Your task to perform on an android device: set default search engine in the chrome app Image 0: 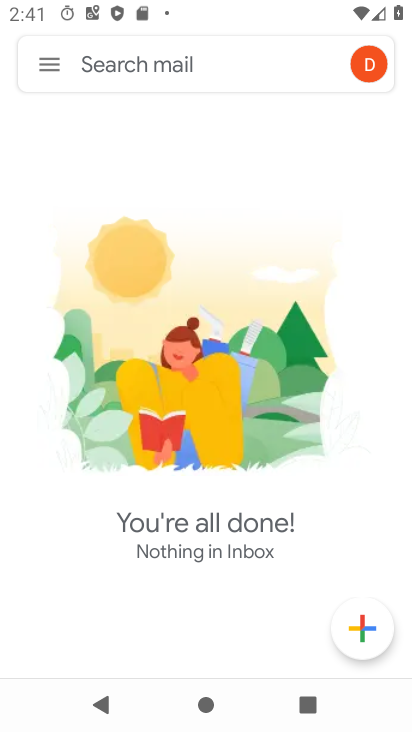
Step 0: press home button
Your task to perform on an android device: set default search engine in the chrome app Image 1: 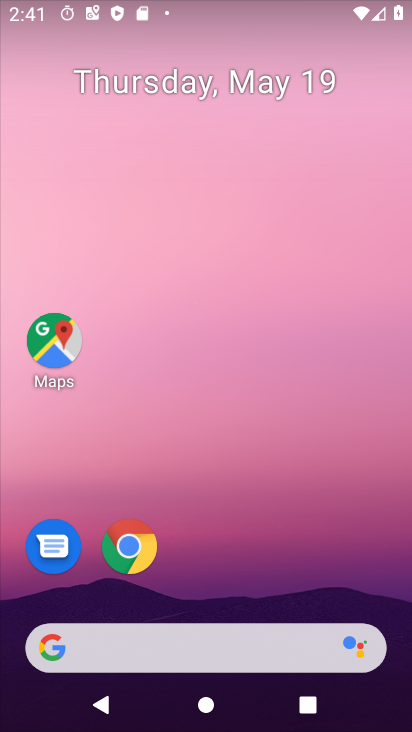
Step 1: click (133, 536)
Your task to perform on an android device: set default search engine in the chrome app Image 2: 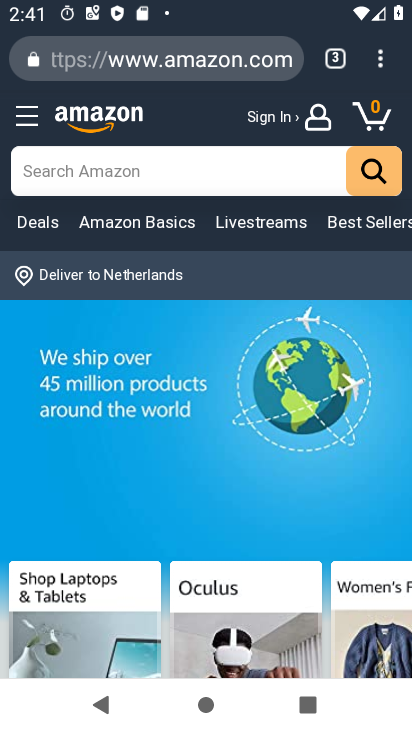
Step 2: click (396, 58)
Your task to perform on an android device: set default search engine in the chrome app Image 3: 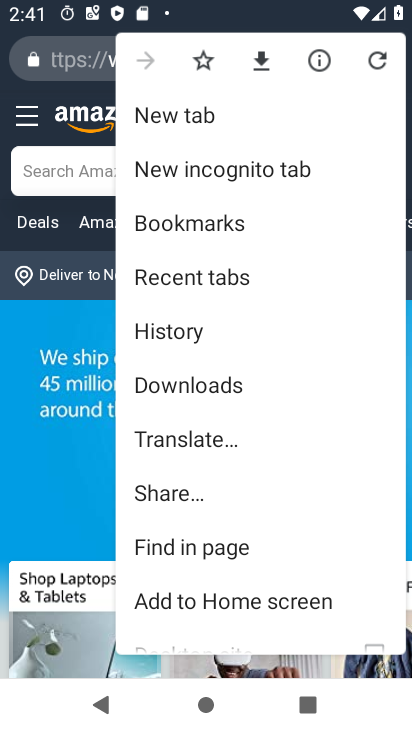
Step 3: drag from (164, 625) to (308, 200)
Your task to perform on an android device: set default search engine in the chrome app Image 4: 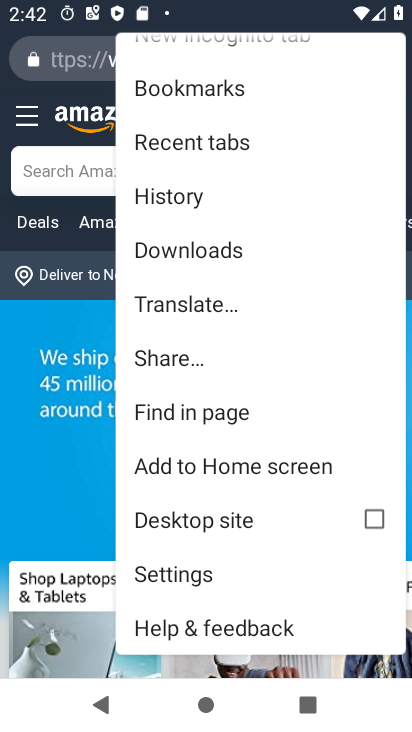
Step 4: click (157, 574)
Your task to perform on an android device: set default search engine in the chrome app Image 5: 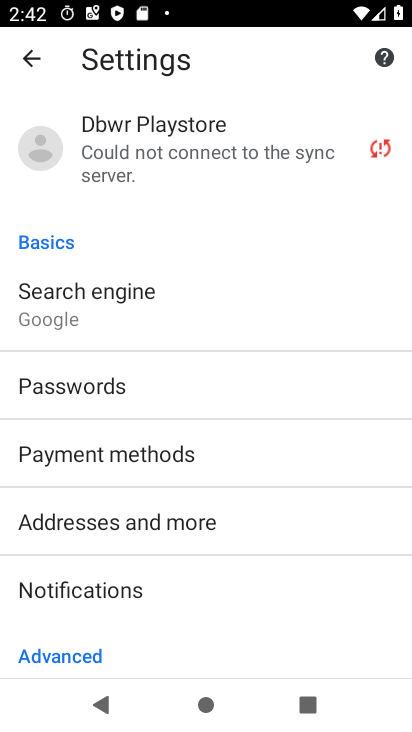
Step 5: click (132, 308)
Your task to perform on an android device: set default search engine in the chrome app Image 6: 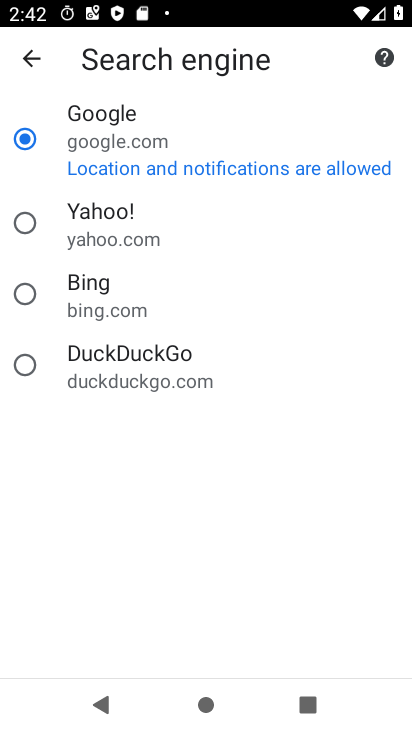
Step 6: click (138, 296)
Your task to perform on an android device: set default search engine in the chrome app Image 7: 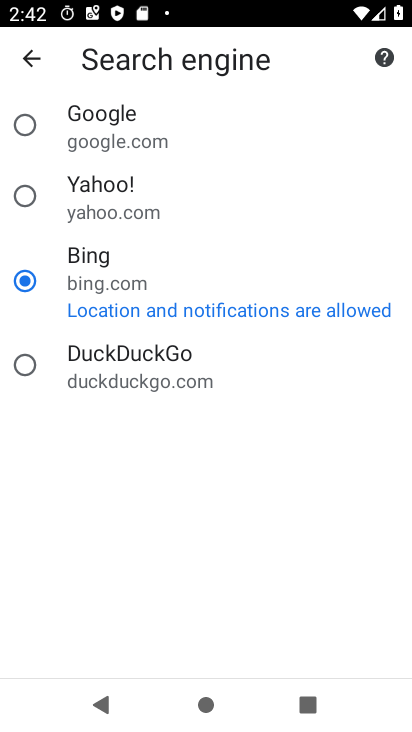
Step 7: task complete